Your task to perform on an android device: change timer sound Image 0: 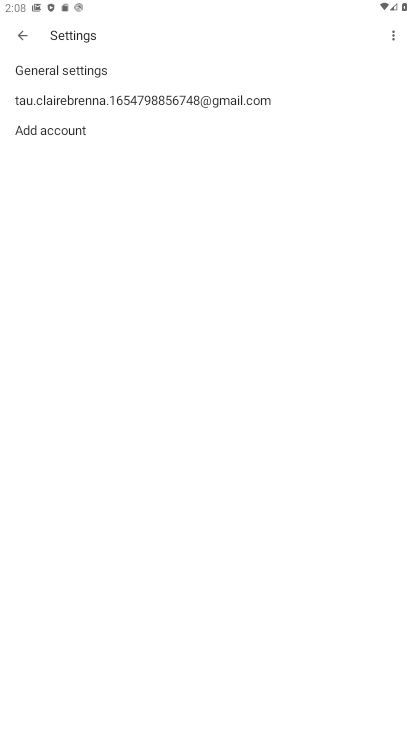
Step 0: press home button
Your task to perform on an android device: change timer sound Image 1: 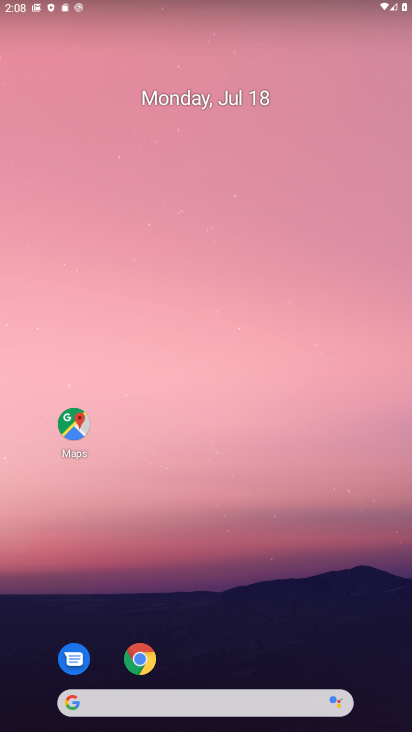
Step 1: drag from (188, 700) to (171, 111)
Your task to perform on an android device: change timer sound Image 2: 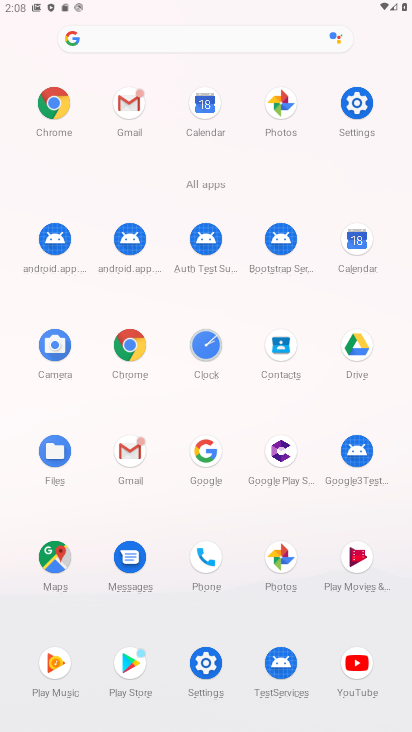
Step 2: click (205, 344)
Your task to perform on an android device: change timer sound Image 3: 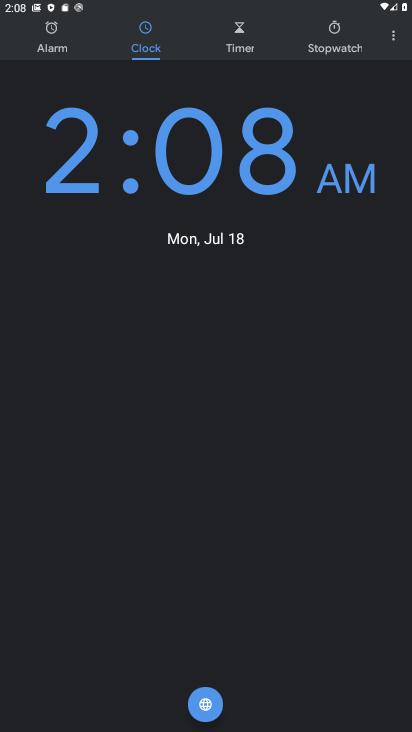
Step 3: click (397, 33)
Your task to perform on an android device: change timer sound Image 4: 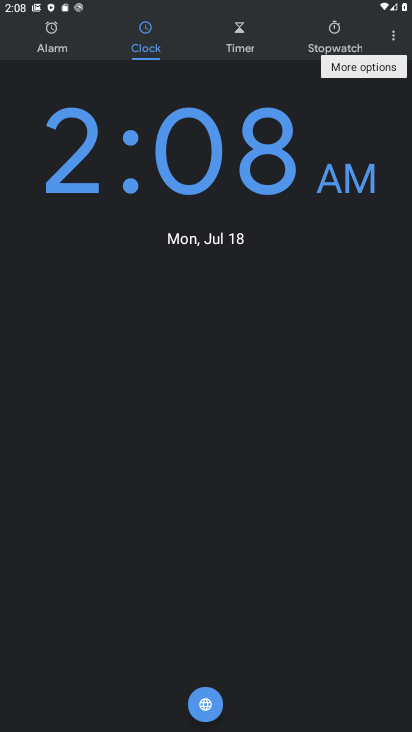
Step 4: click (397, 33)
Your task to perform on an android device: change timer sound Image 5: 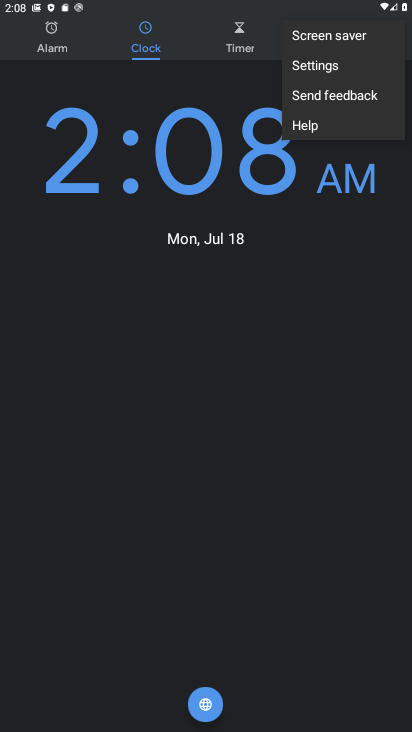
Step 5: click (321, 71)
Your task to perform on an android device: change timer sound Image 6: 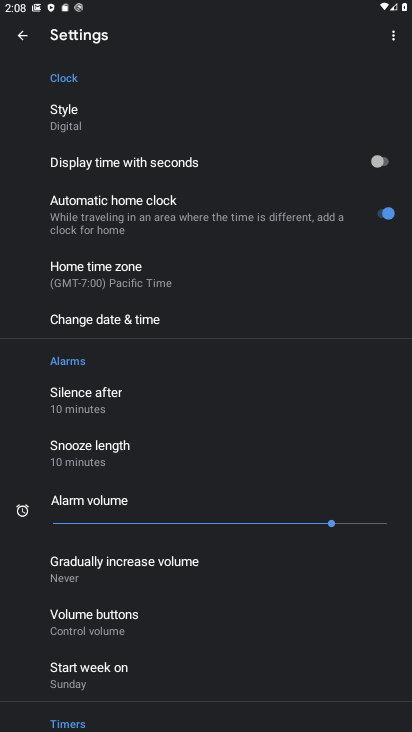
Step 6: drag from (147, 679) to (141, 188)
Your task to perform on an android device: change timer sound Image 7: 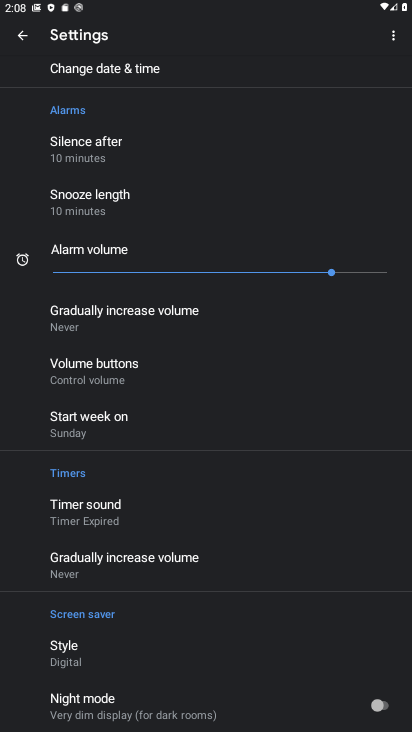
Step 7: click (134, 511)
Your task to perform on an android device: change timer sound Image 8: 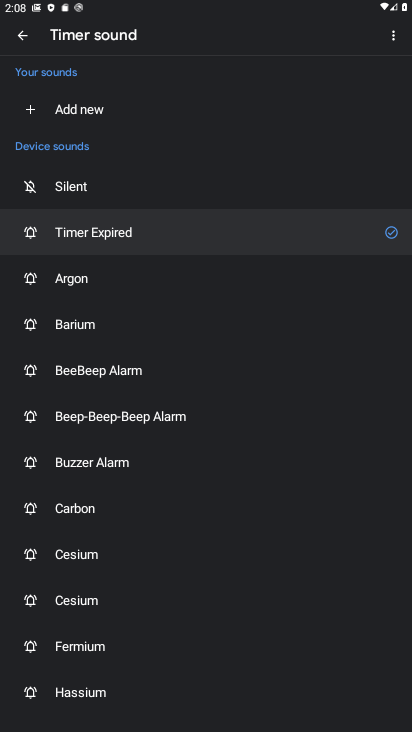
Step 8: click (78, 696)
Your task to perform on an android device: change timer sound Image 9: 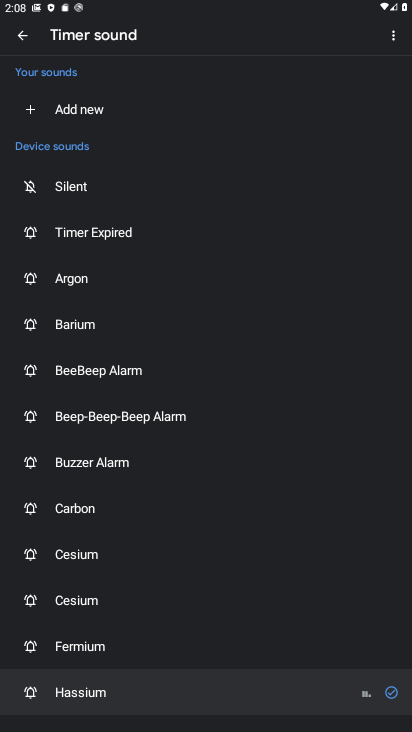
Step 9: task complete